Your task to perform on an android device: change timer sound Image 0: 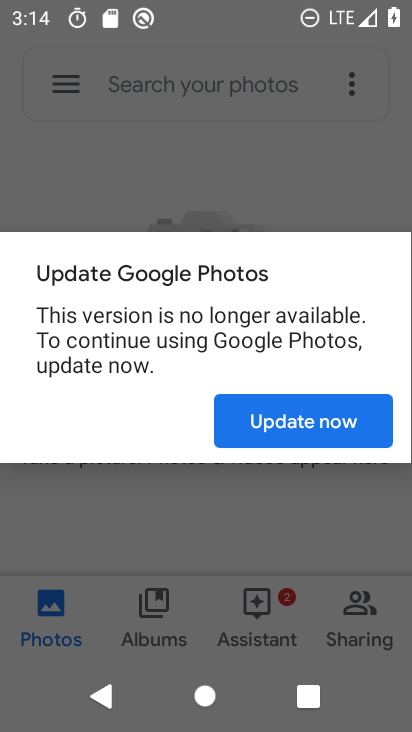
Step 0: press back button
Your task to perform on an android device: change timer sound Image 1: 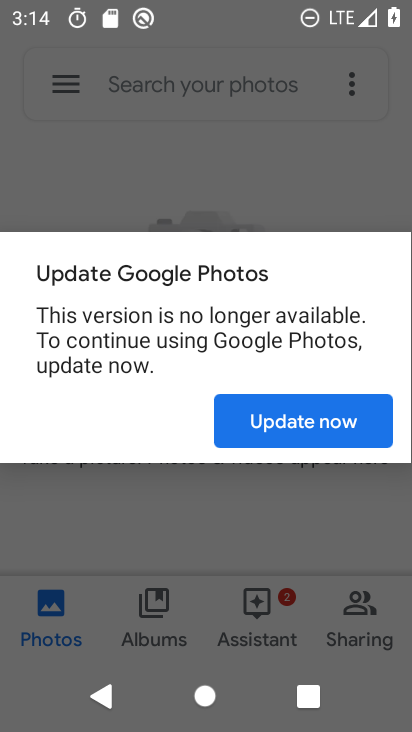
Step 1: press back button
Your task to perform on an android device: change timer sound Image 2: 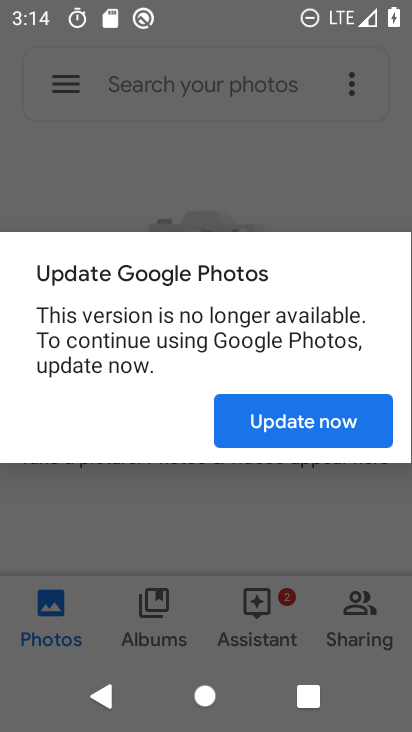
Step 2: press home button
Your task to perform on an android device: change timer sound Image 3: 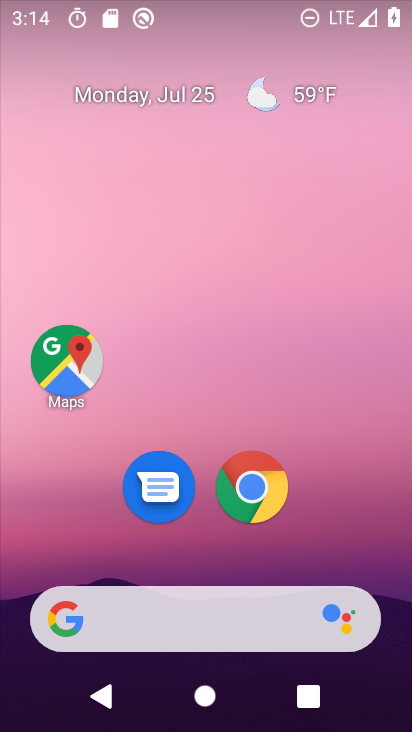
Step 3: drag from (147, 515) to (233, 9)
Your task to perform on an android device: change timer sound Image 4: 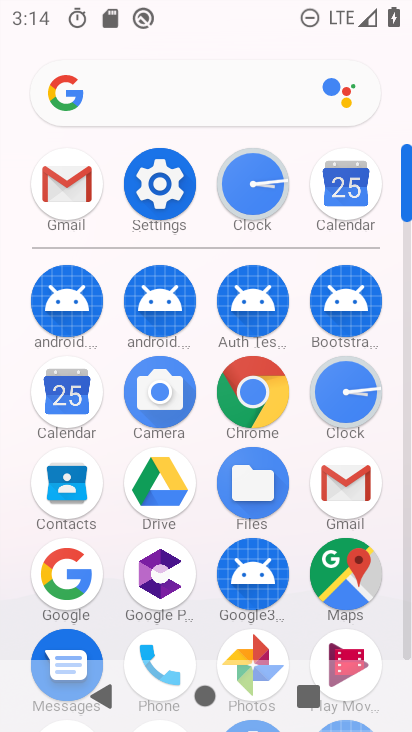
Step 4: click (344, 395)
Your task to perform on an android device: change timer sound Image 5: 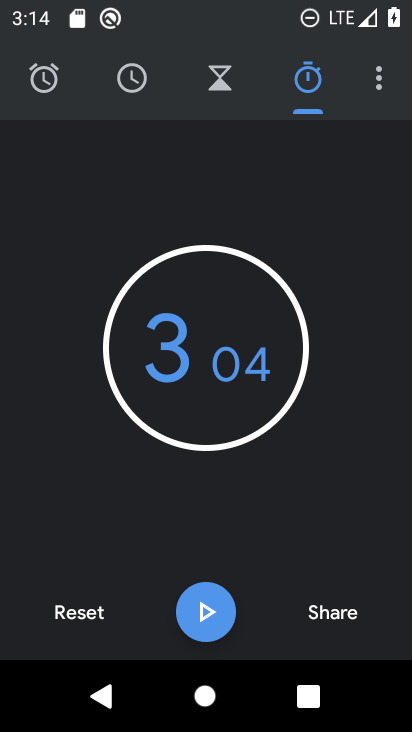
Step 5: click (384, 60)
Your task to perform on an android device: change timer sound Image 6: 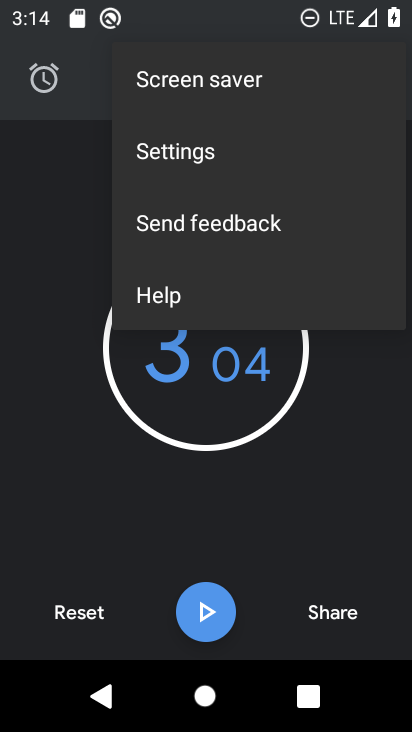
Step 6: click (144, 148)
Your task to perform on an android device: change timer sound Image 7: 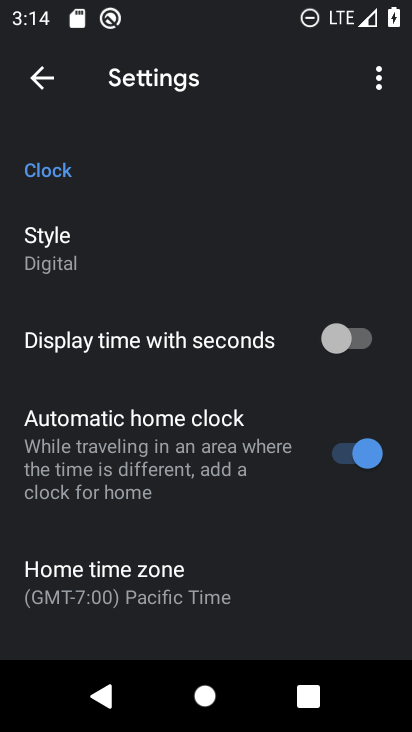
Step 7: drag from (163, 593) to (277, 94)
Your task to perform on an android device: change timer sound Image 8: 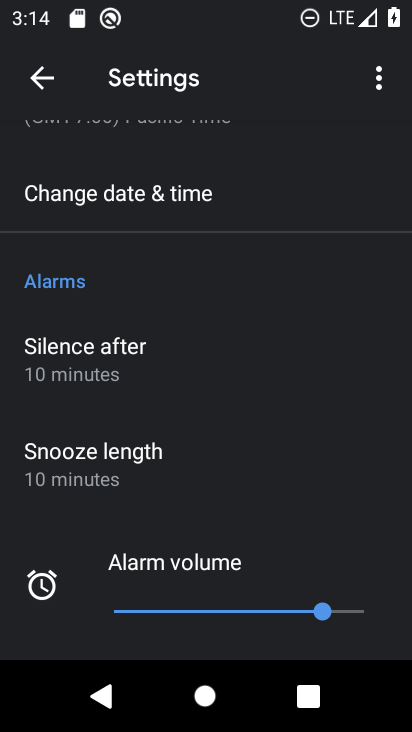
Step 8: drag from (148, 509) to (231, 8)
Your task to perform on an android device: change timer sound Image 9: 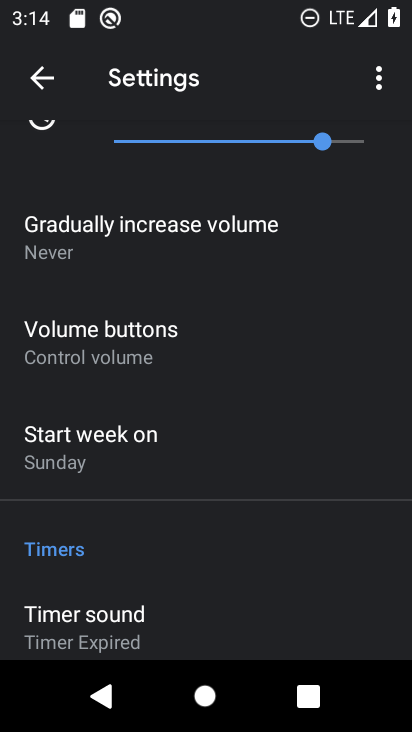
Step 9: drag from (211, 572) to (275, 268)
Your task to perform on an android device: change timer sound Image 10: 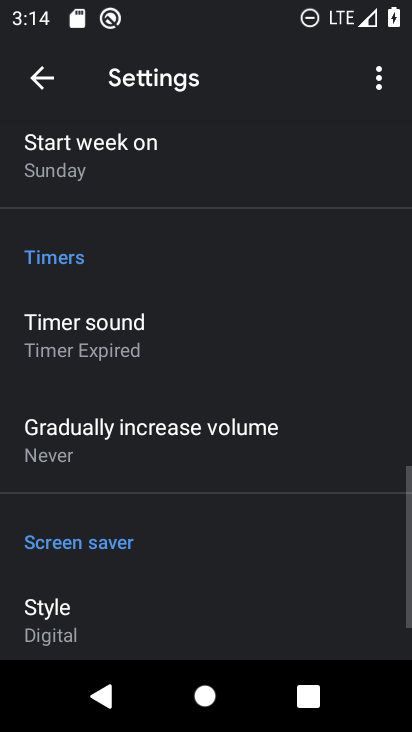
Step 10: click (108, 346)
Your task to perform on an android device: change timer sound Image 11: 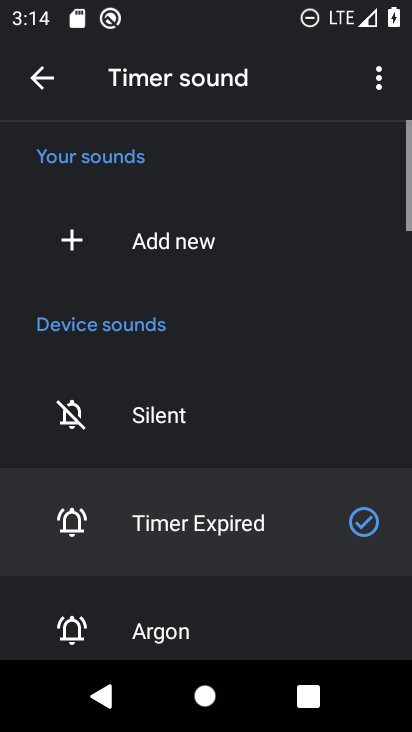
Step 11: drag from (205, 633) to (302, 66)
Your task to perform on an android device: change timer sound Image 12: 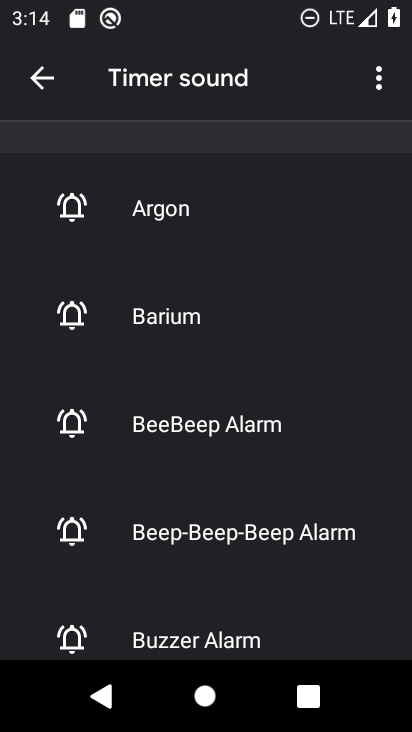
Step 12: click (162, 197)
Your task to perform on an android device: change timer sound Image 13: 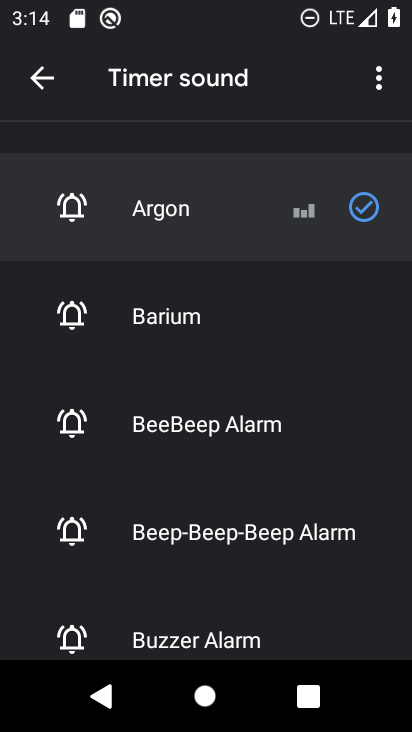
Step 13: task complete